Your task to perform on an android device: Open ESPN.com Image 0: 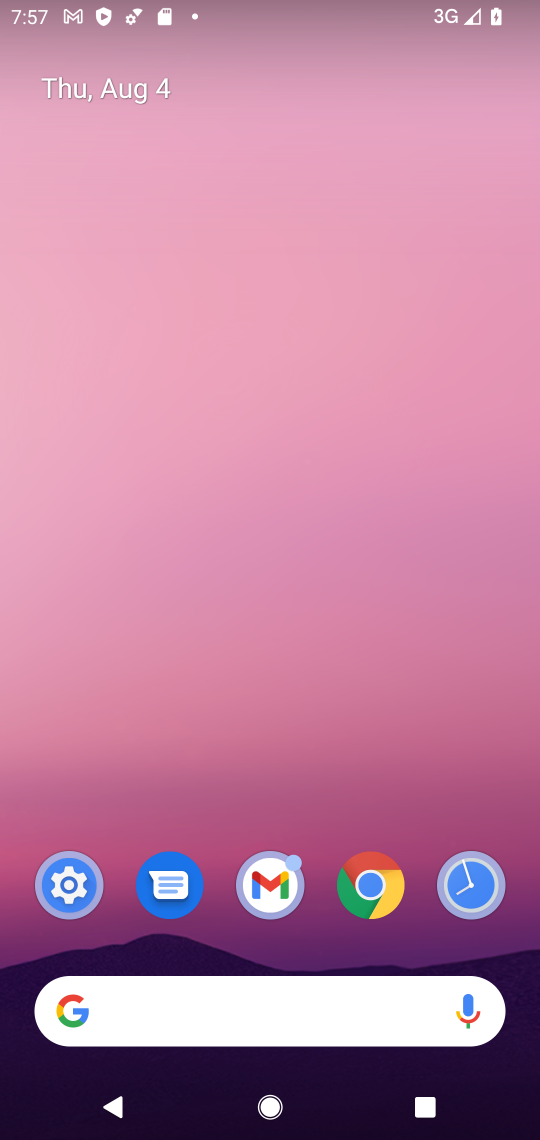
Step 0: press home button
Your task to perform on an android device: Open ESPN.com Image 1: 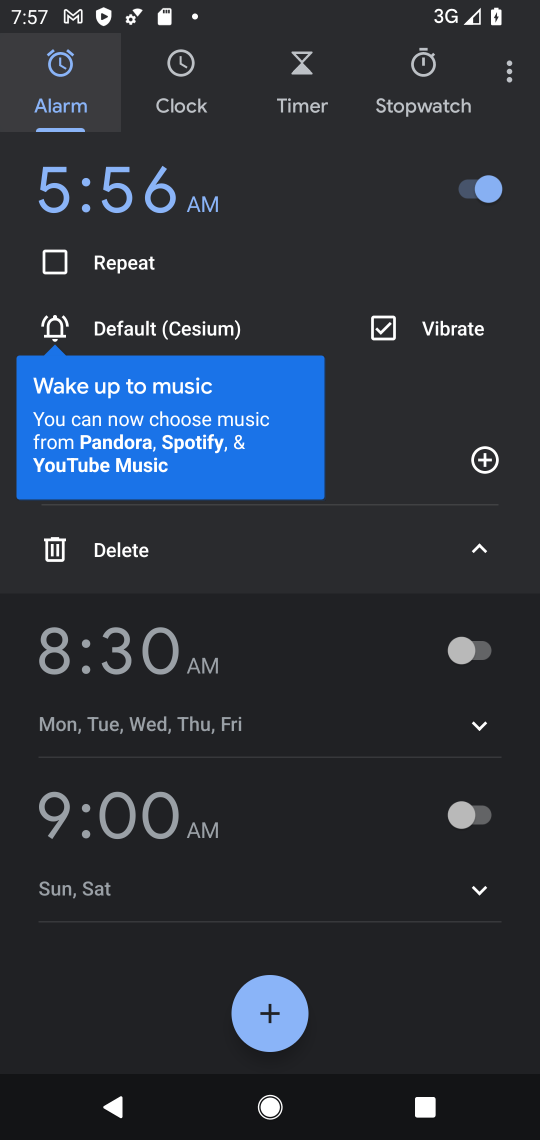
Step 1: press home button
Your task to perform on an android device: Open ESPN.com Image 2: 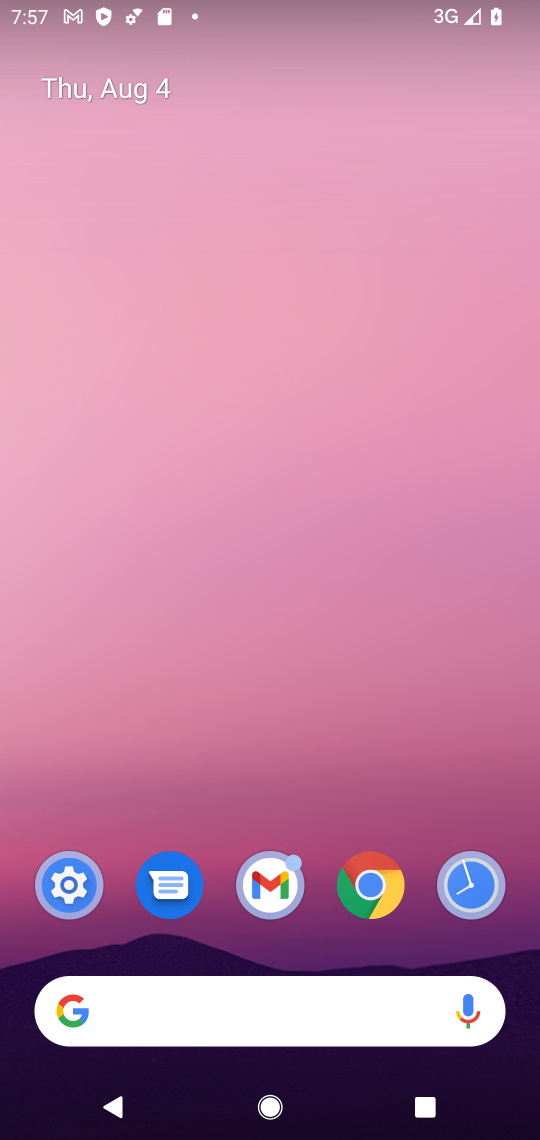
Step 2: drag from (285, 770) to (267, 64)
Your task to perform on an android device: Open ESPN.com Image 3: 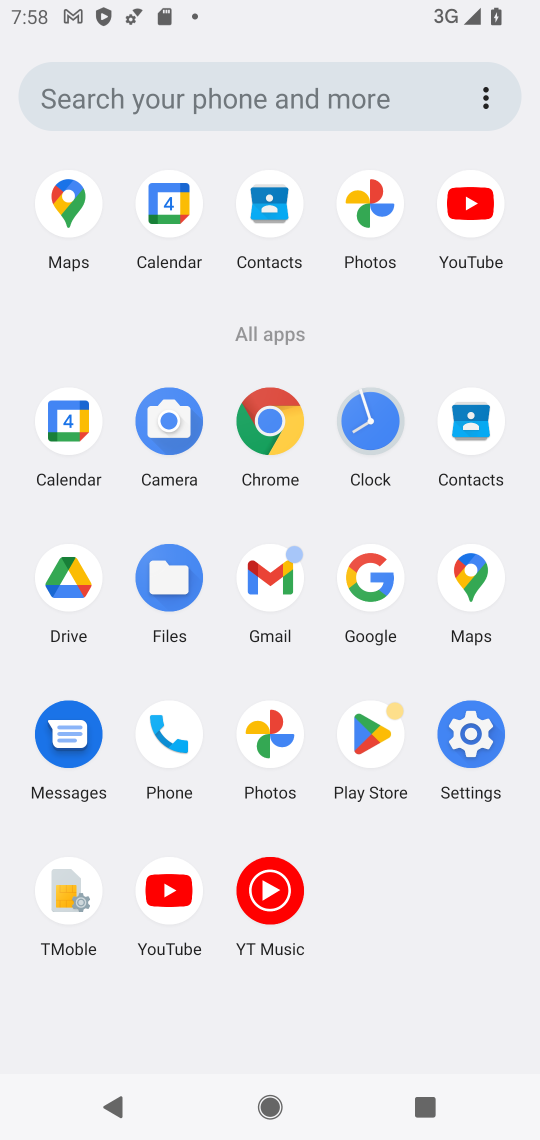
Step 3: click (270, 413)
Your task to perform on an android device: Open ESPN.com Image 4: 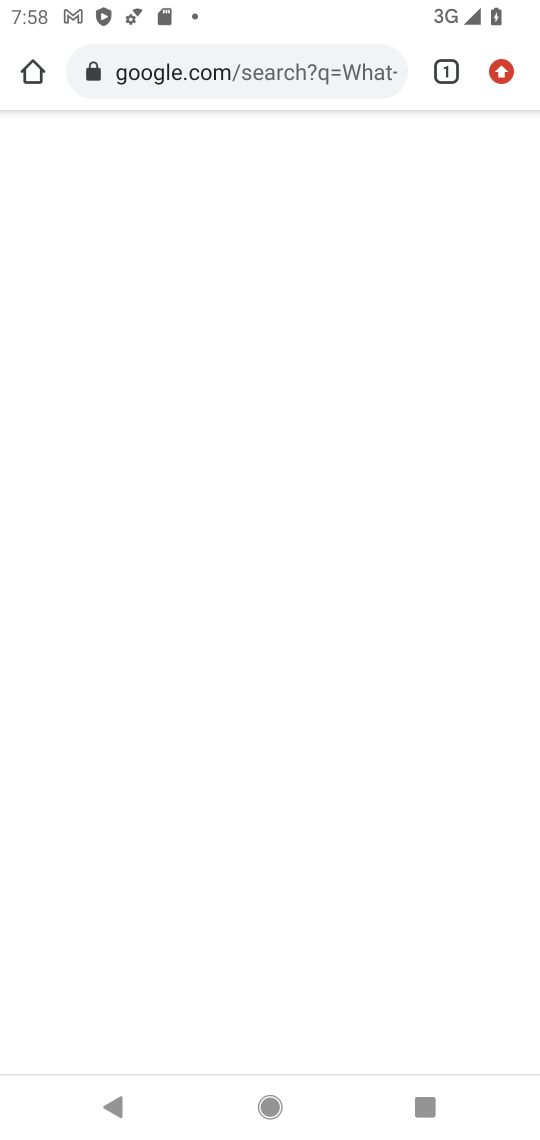
Step 4: click (275, 71)
Your task to perform on an android device: Open ESPN.com Image 5: 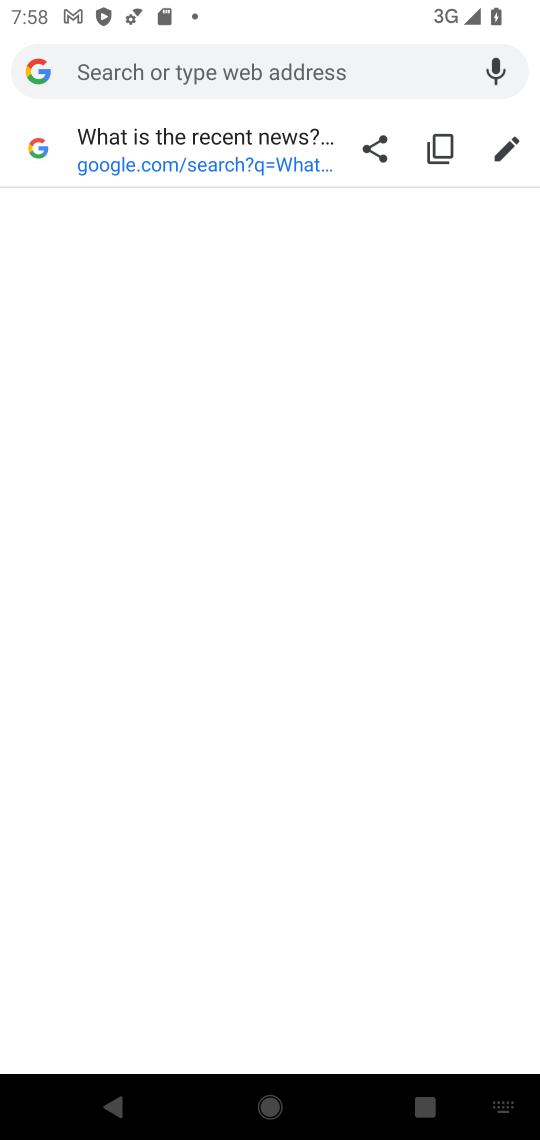
Step 5: type "ESPN.com"
Your task to perform on an android device: Open ESPN.com Image 6: 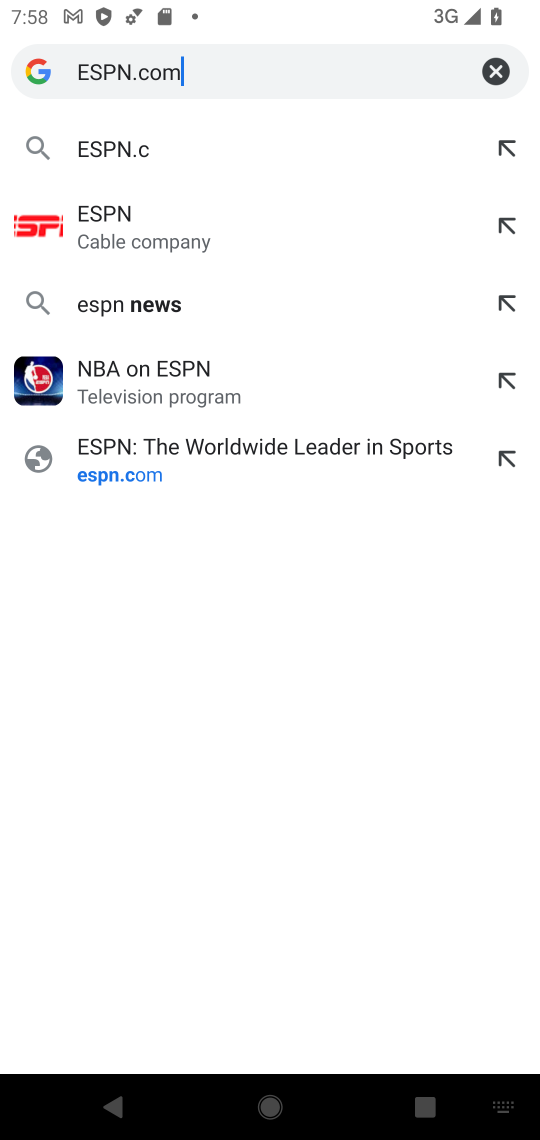
Step 6: type ""
Your task to perform on an android device: Open ESPN.com Image 7: 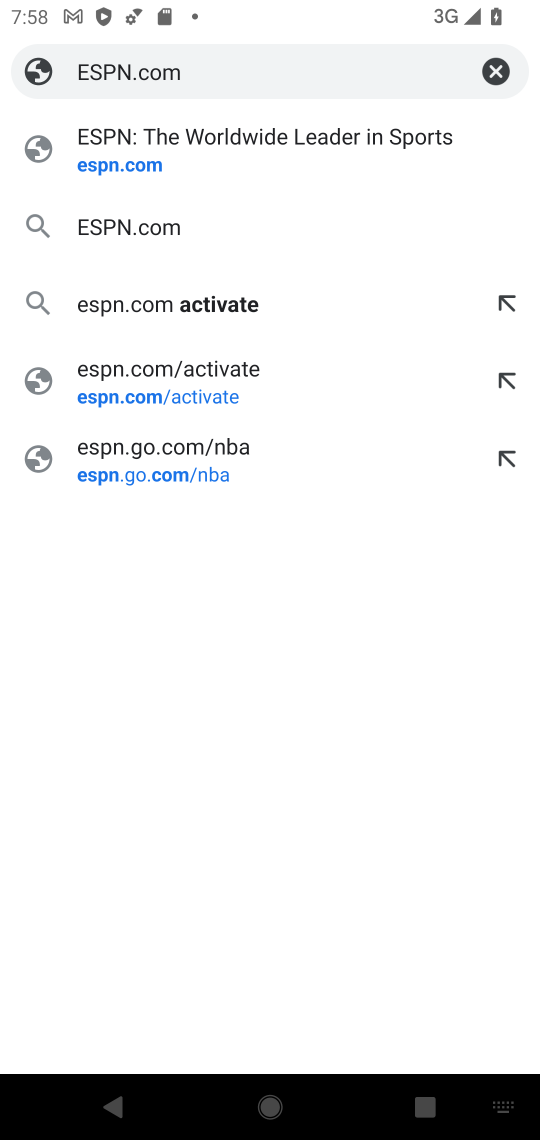
Step 7: click (140, 160)
Your task to perform on an android device: Open ESPN.com Image 8: 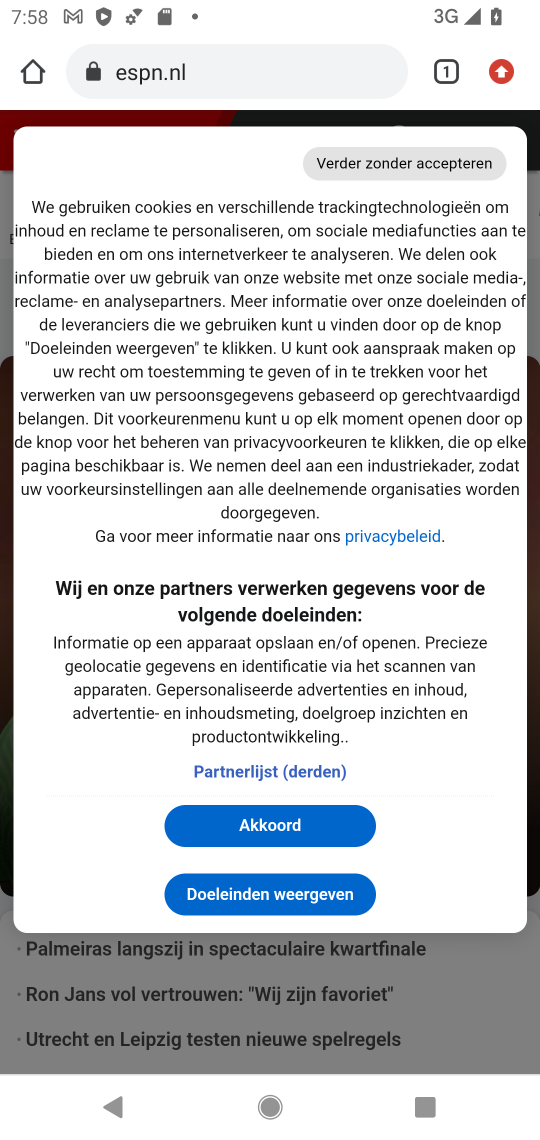
Step 8: task complete